Your task to perform on an android device: Open settings on Google Maps Image 0: 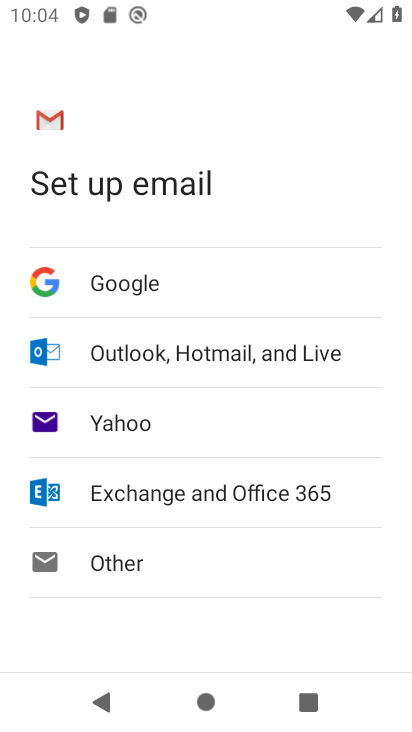
Step 0: press home button
Your task to perform on an android device: Open settings on Google Maps Image 1: 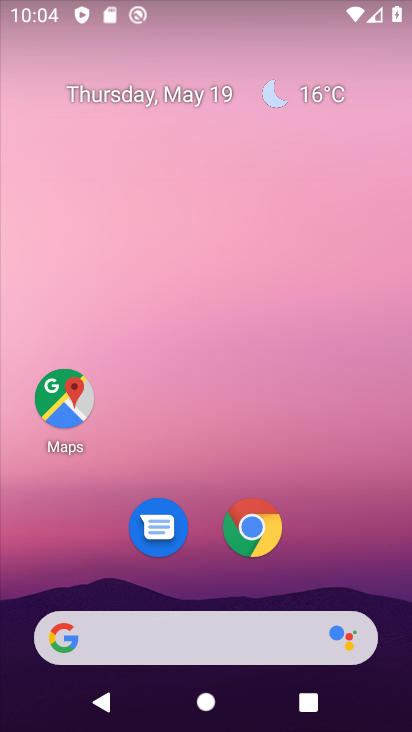
Step 1: click (71, 408)
Your task to perform on an android device: Open settings on Google Maps Image 2: 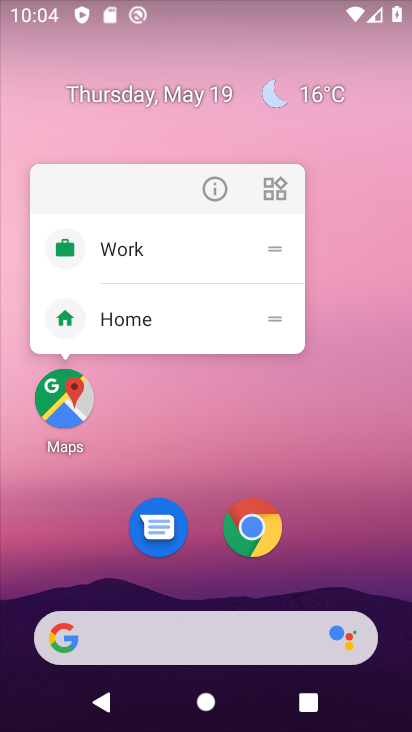
Step 2: click (71, 402)
Your task to perform on an android device: Open settings on Google Maps Image 3: 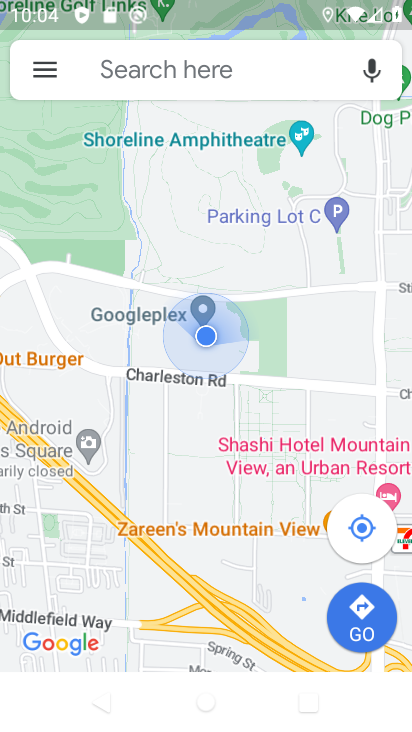
Step 3: click (44, 71)
Your task to perform on an android device: Open settings on Google Maps Image 4: 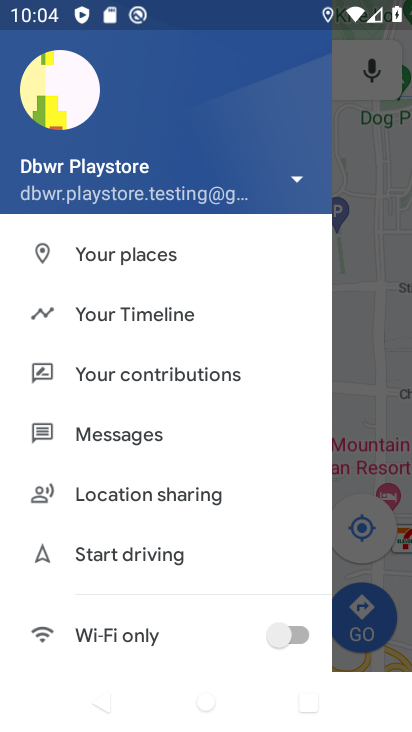
Step 4: drag from (135, 618) to (134, 179)
Your task to perform on an android device: Open settings on Google Maps Image 5: 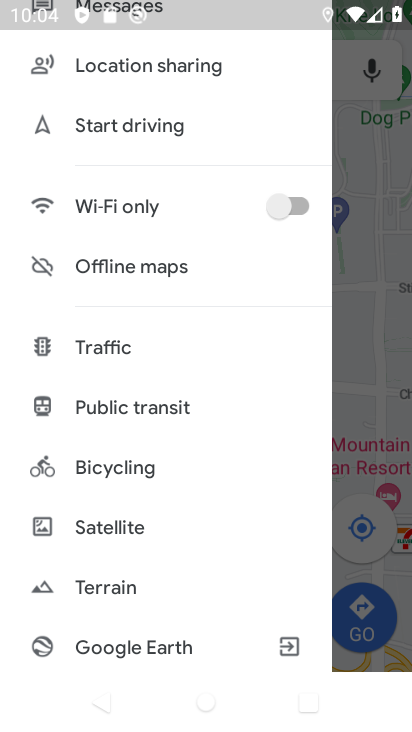
Step 5: drag from (90, 636) to (147, 225)
Your task to perform on an android device: Open settings on Google Maps Image 6: 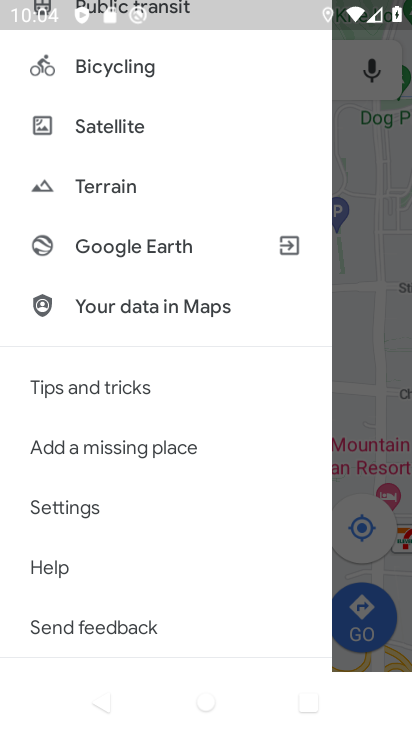
Step 6: click (58, 519)
Your task to perform on an android device: Open settings on Google Maps Image 7: 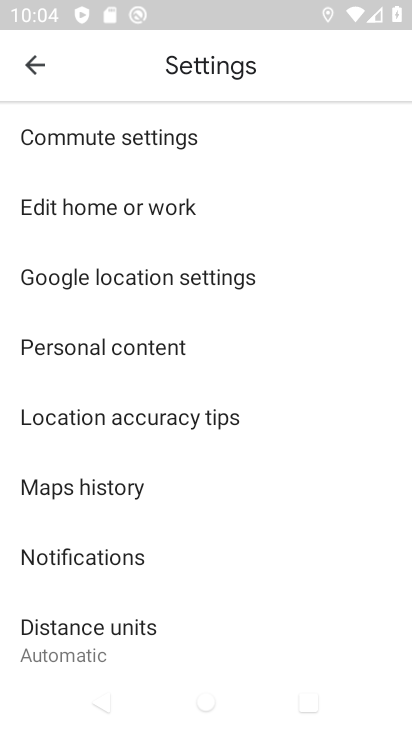
Step 7: task complete